Your task to perform on an android device: open chrome privacy settings Image 0: 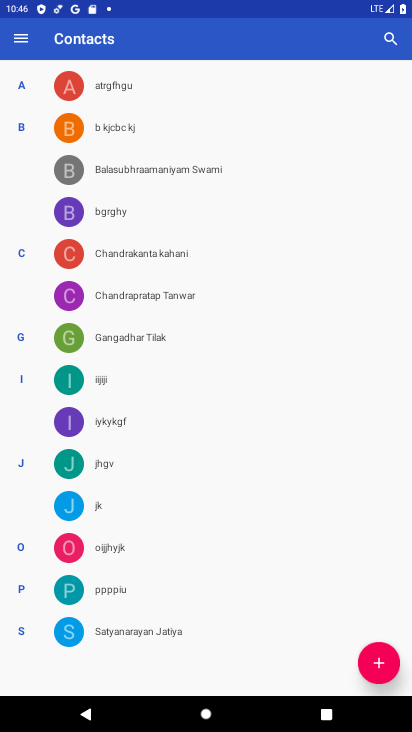
Step 0: press home button
Your task to perform on an android device: open chrome privacy settings Image 1: 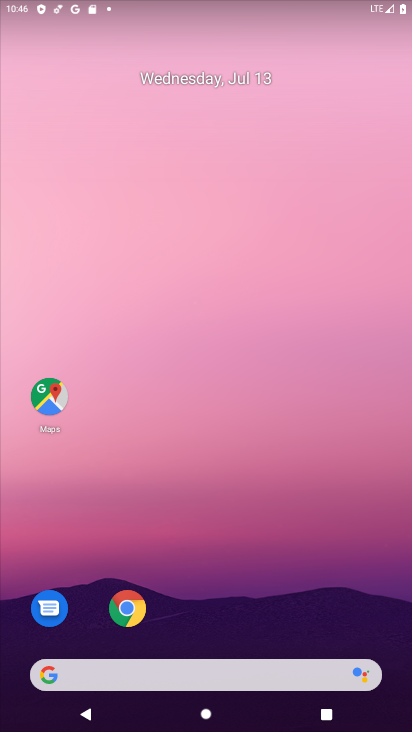
Step 1: click (128, 600)
Your task to perform on an android device: open chrome privacy settings Image 2: 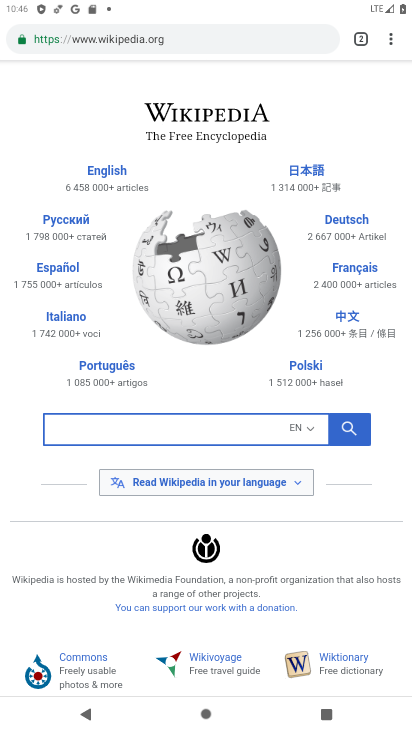
Step 2: click (385, 48)
Your task to perform on an android device: open chrome privacy settings Image 3: 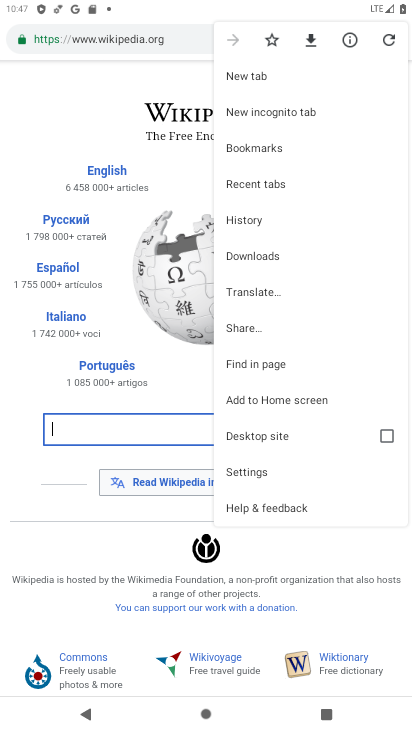
Step 3: click (252, 476)
Your task to perform on an android device: open chrome privacy settings Image 4: 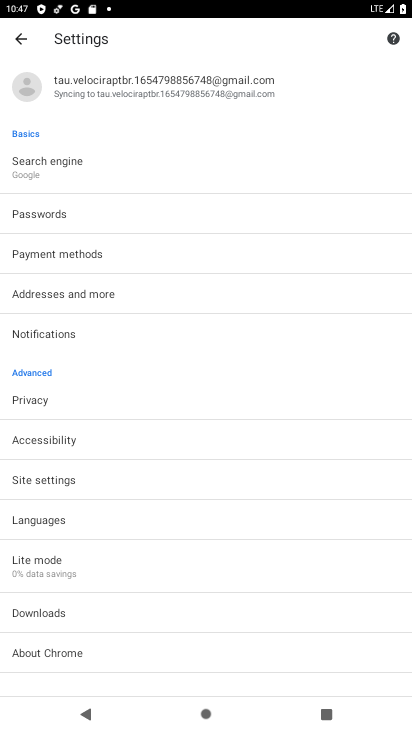
Step 4: click (34, 403)
Your task to perform on an android device: open chrome privacy settings Image 5: 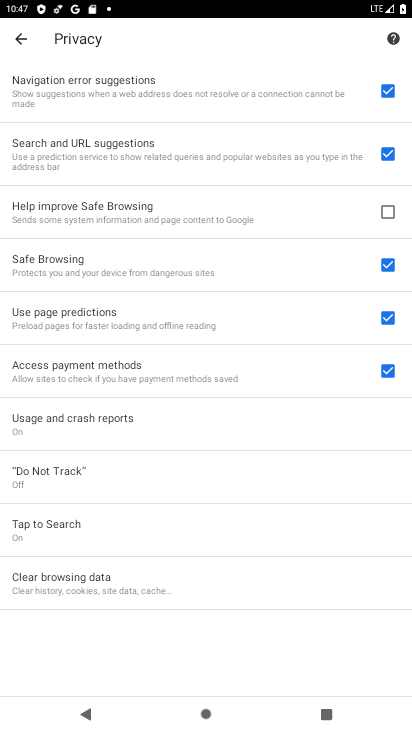
Step 5: task complete